Your task to perform on an android device: toggle location history Image 0: 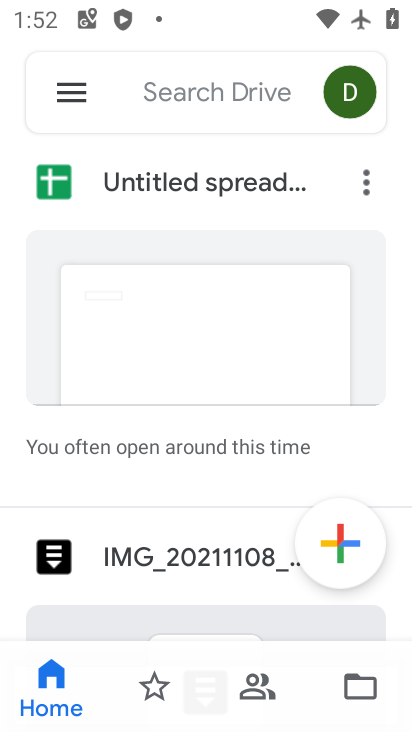
Step 0: press home button
Your task to perform on an android device: toggle location history Image 1: 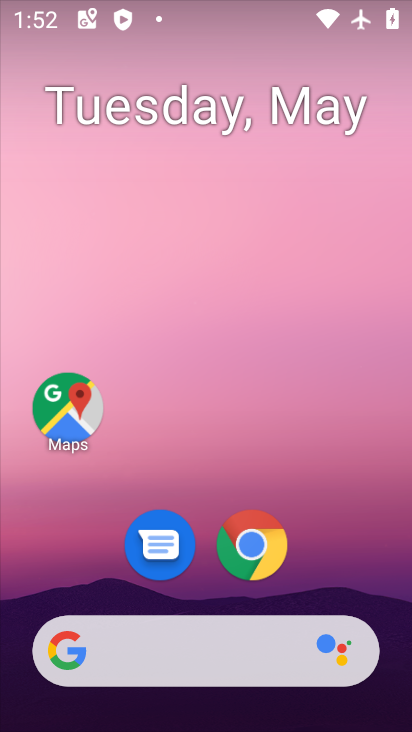
Step 1: click (68, 409)
Your task to perform on an android device: toggle location history Image 2: 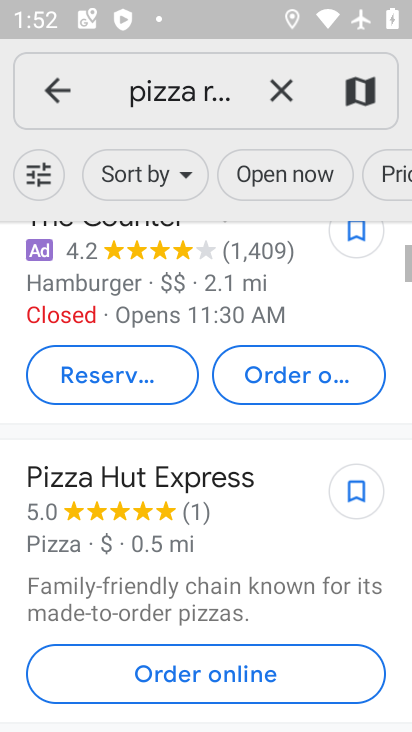
Step 2: click (279, 89)
Your task to perform on an android device: toggle location history Image 3: 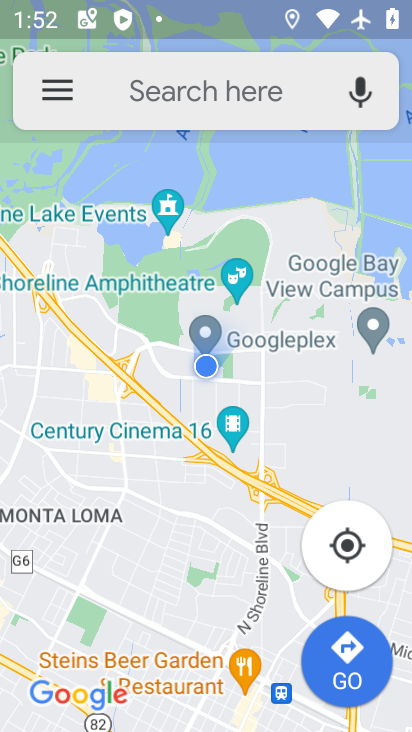
Step 3: click (41, 80)
Your task to perform on an android device: toggle location history Image 4: 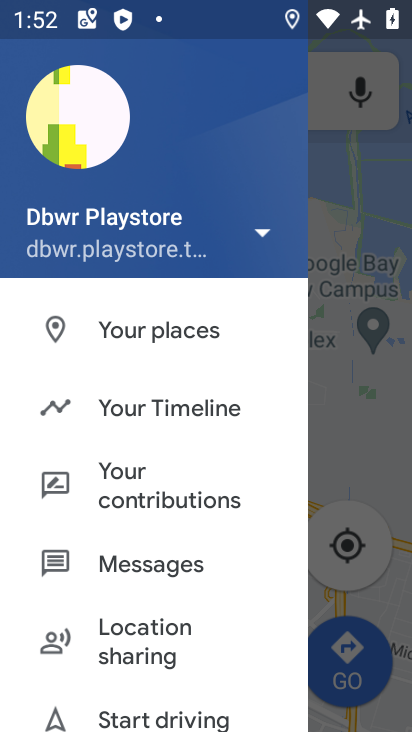
Step 4: drag from (239, 671) to (247, 132)
Your task to perform on an android device: toggle location history Image 5: 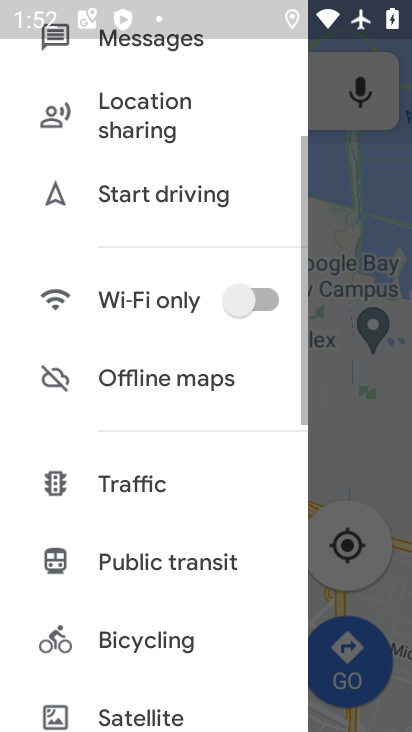
Step 5: drag from (235, 656) to (211, 197)
Your task to perform on an android device: toggle location history Image 6: 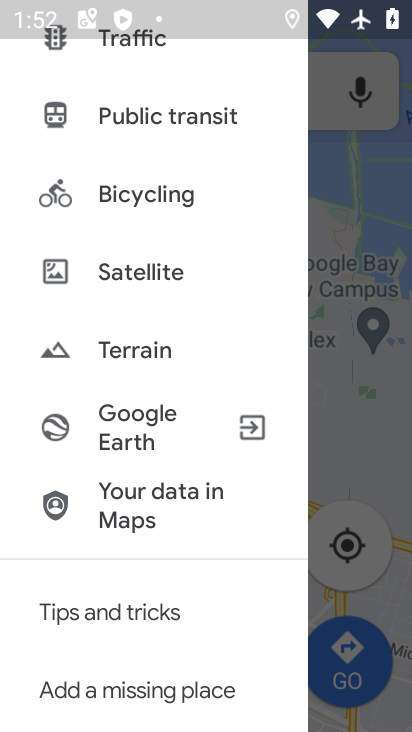
Step 6: drag from (209, 682) to (166, 225)
Your task to perform on an android device: toggle location history Image 7: 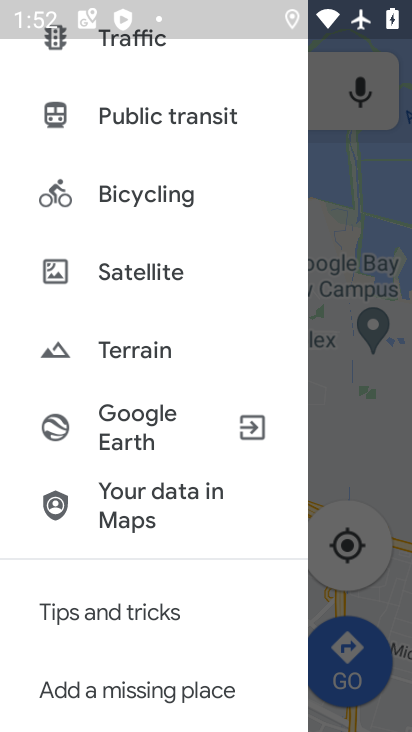
Step 7: drag from (216, 665) to (229, 369)
Your task to perform on an android device: toggle location history Image 8: 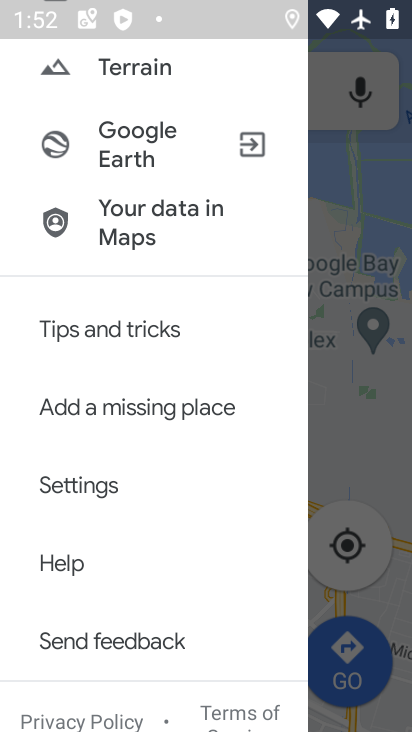
Step 8: click (63, 477)
Your task to perform on an android device: toggle location history Image 9: 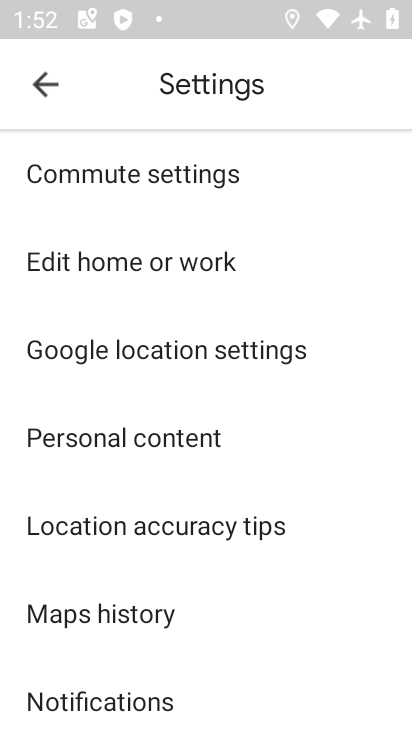
Step 9: click (112, 429)
Your task to perform on an android device: toggle location history Image 10: 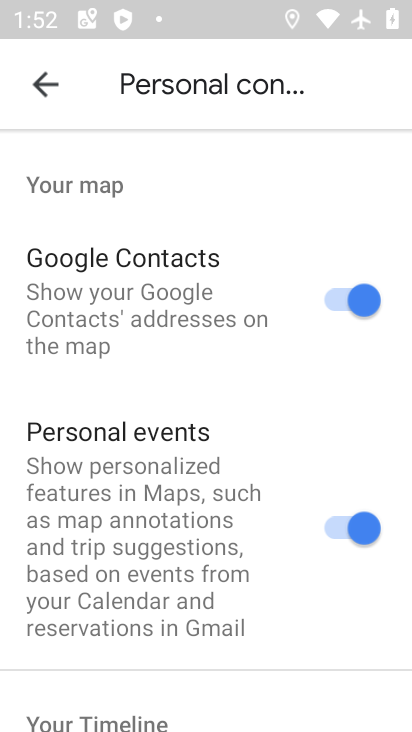
Step 10: drag from (294, 637) to (207, 269)
Your task to perform on an android device: toggle location history Image 11: 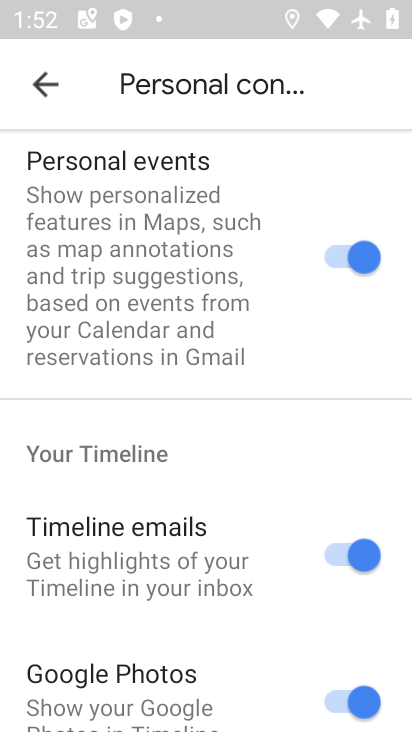
Step 11: drag from (267, 646) to (238, 199)
Your task to perform on an android device: toggle location history Image 12: 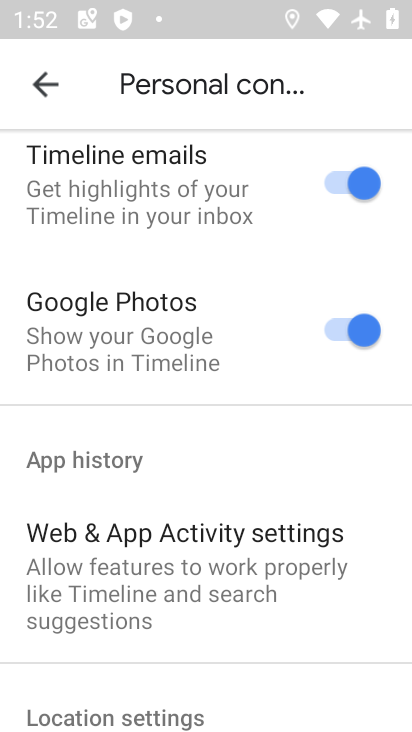
Step 12: drag from (267, 650) to (225, 207)
Your task to perform on an android device: toggle location history Image 13: 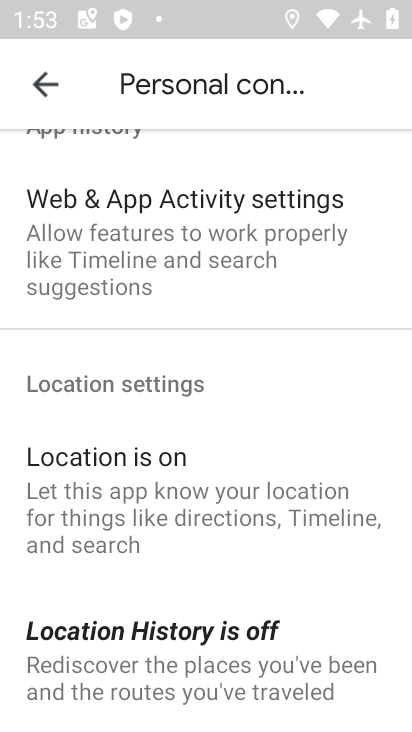
Step 13: drag from (255, 612) to (221, 257)
Your task to perform on an android device: toggle location history Image 14: 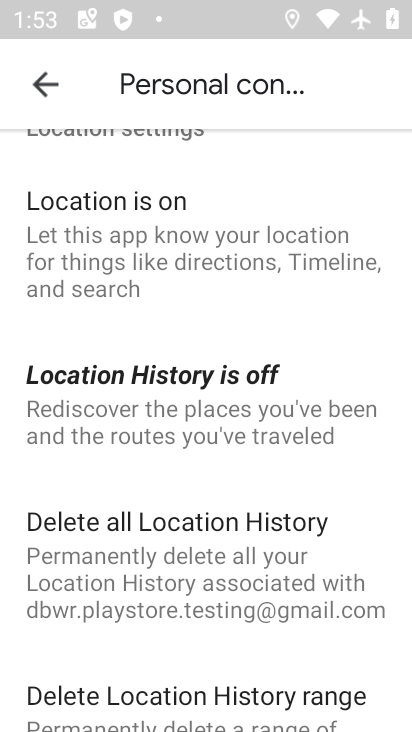
Step 14: click (127, 408)
Your task to perform on an android device: toggle location history Image 15: 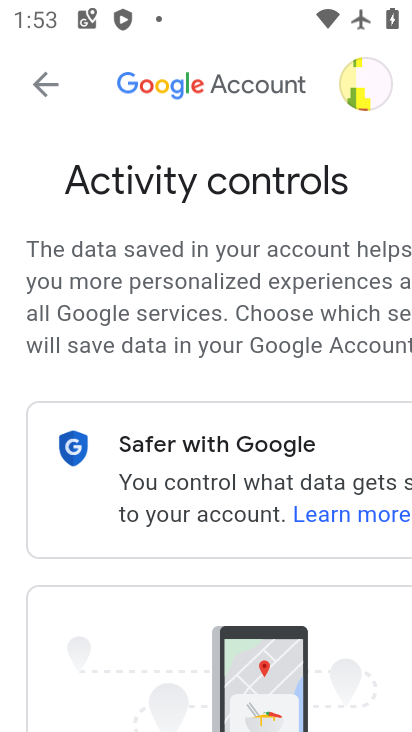
Step 15: drag from (255, 651) to (224, 277)
Your task to perform on an android device: toggle location history Image 16: 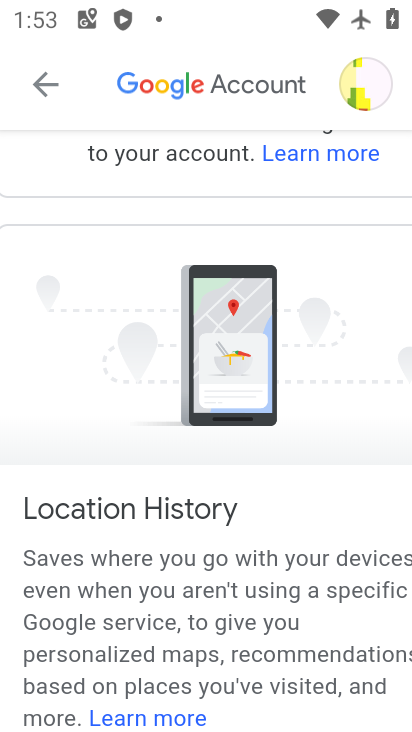
Step 16: drag from (271, 589) to (205, 194)
Your task to perform on an android device: toggle location history Image 17: 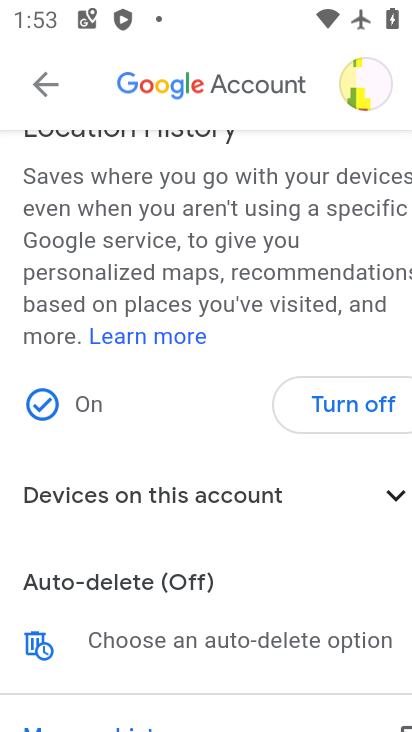
Step 17: click (337, 406)
Your task to perform on an android device: toggle location history Image 18: 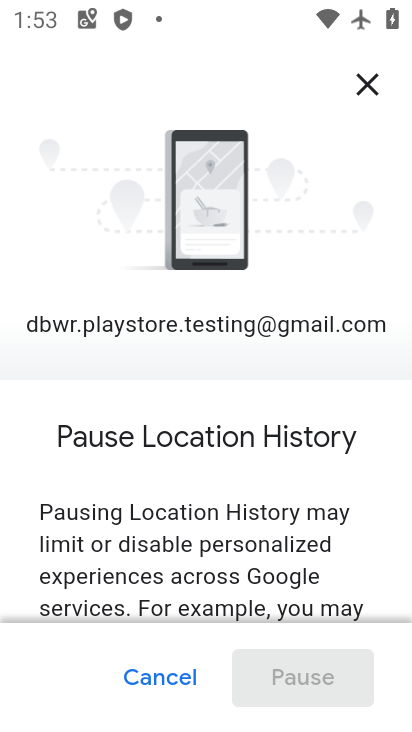
Step 18: drag from (286, 574) to (205, 35)
Your task to perform on an android device: toggle location history Image 19: 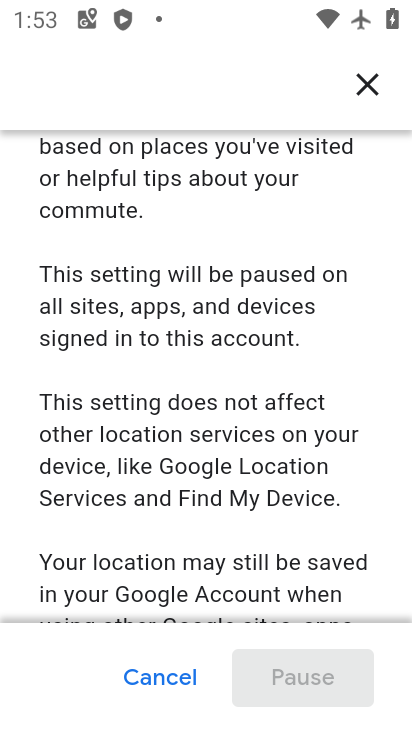
Step 19: drag from (226, 577) to (133, 135)
Your task to perform on an android device: toggle location history Image 20: 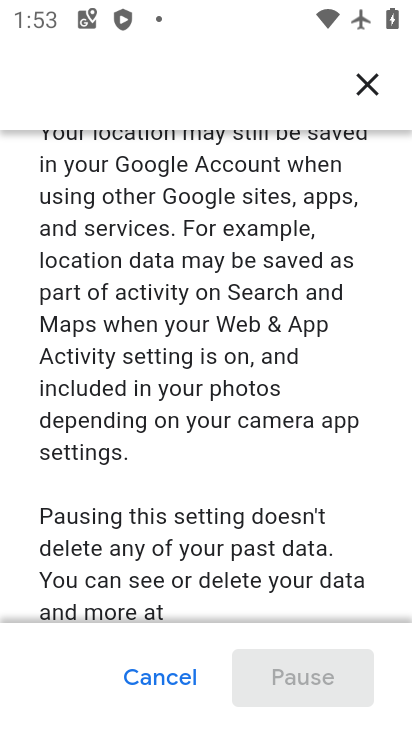
Step 20: drag from (206, 513) to (169, 236)
Your task to perform on an android device: toggle location history Image 21: 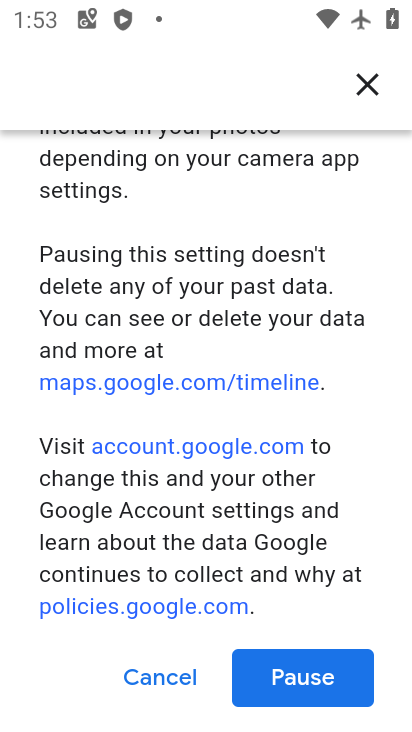
Step 21: click (299, 685)
Your task to perform on an android device: toggle location history Image 22: 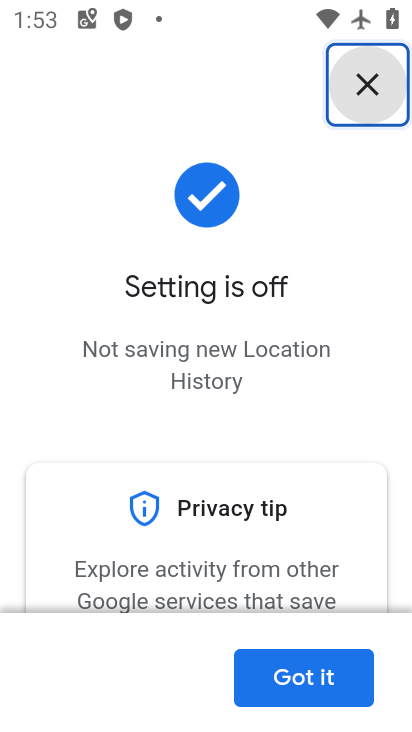
Step 22: drag from (312, 546) to (271, 190)
Your task to perform on an android device: toggle location history Image 23: 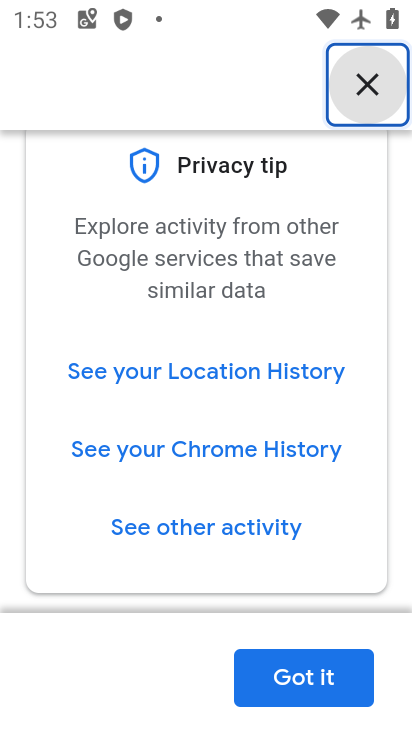
Step 23: click (306, 684)
Your task to perform on an android device: toggle location history Image 24: 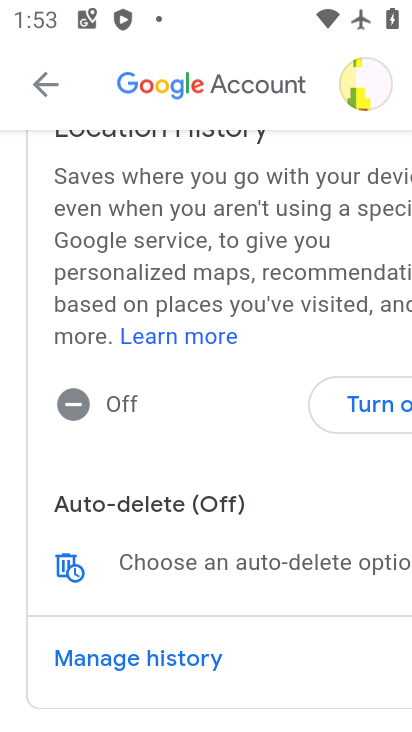
Step 24: task complete